Your task to perform on an android device: see tabs open on other devices in the chrome app Image 0: 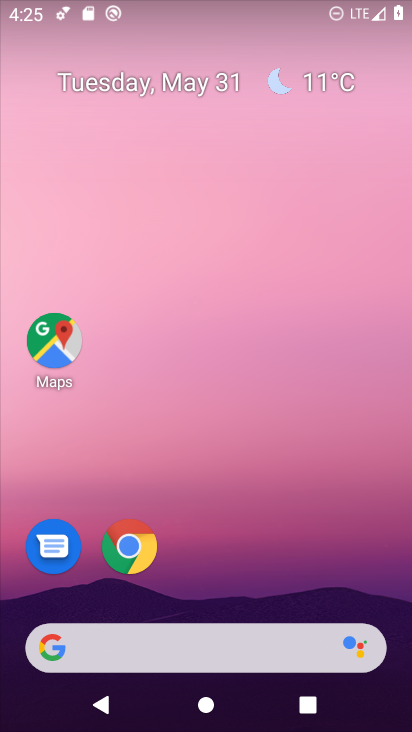
Step 0: click (123, 550)
Your task to perform on an android device: see tabs open on other devices in the chrome app Image 1: 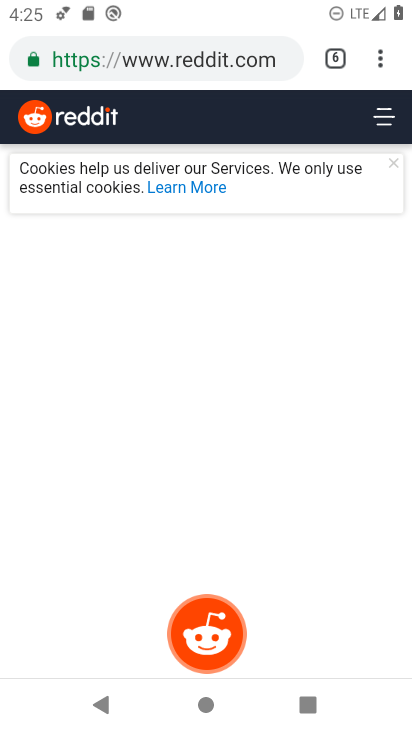
Step 1: click (383, 61)
Your task to perform on an android device: see tabs open on other devices in the chrome app Image 2: 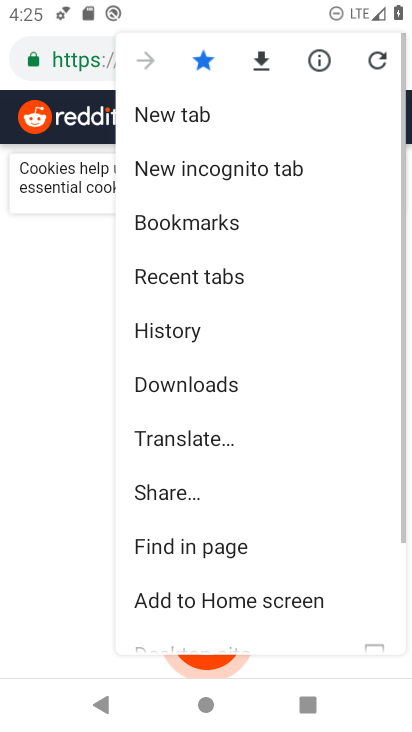
Step 2: click (250, 278)
Your task to perform on an android device: see tabs open on other devices in the chrome app Image 3: 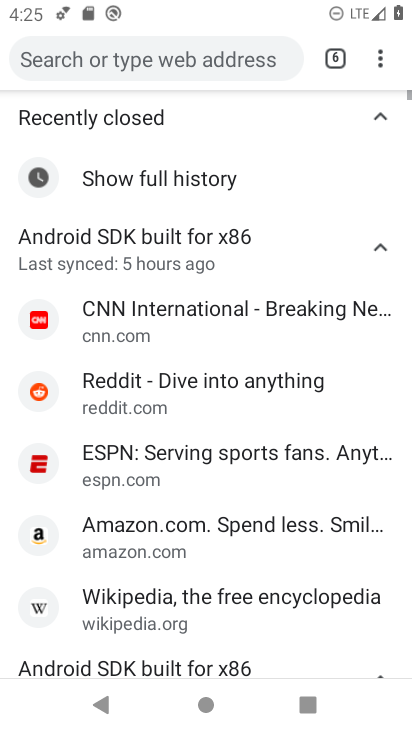
Step 3: task complete